Your task to perform on an android device: Open calendar and show me the first week of next month Image 0: 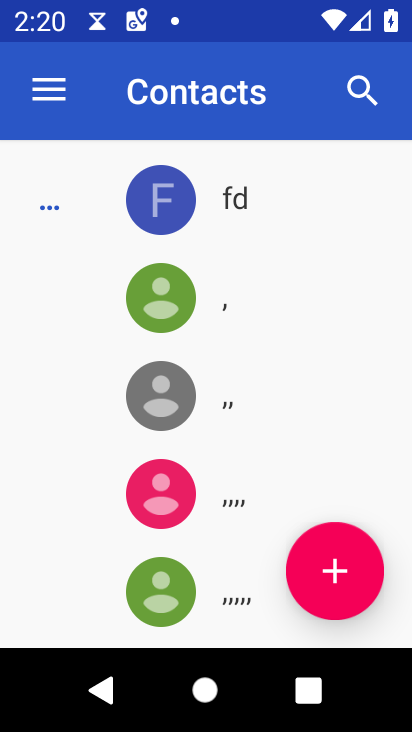
Step 0: press home button
Your task to perform on an android device: Open calendar and show me the first week of next month Image 1: 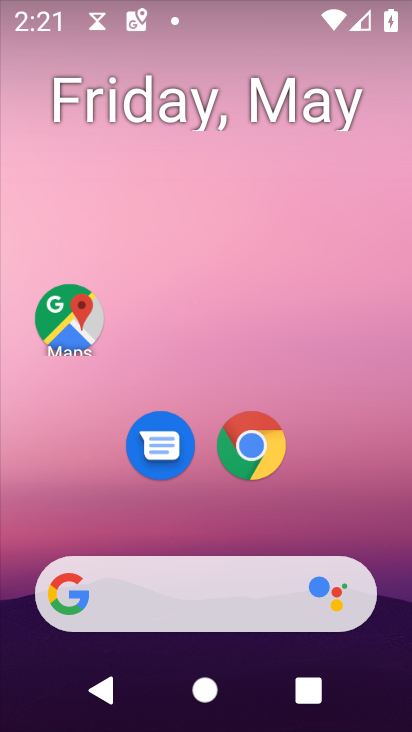
Step 1: drag from (220, 534) to (251, 106)
Your task to perform on an android device: Open calendar and show me the first week of next month Image 2: 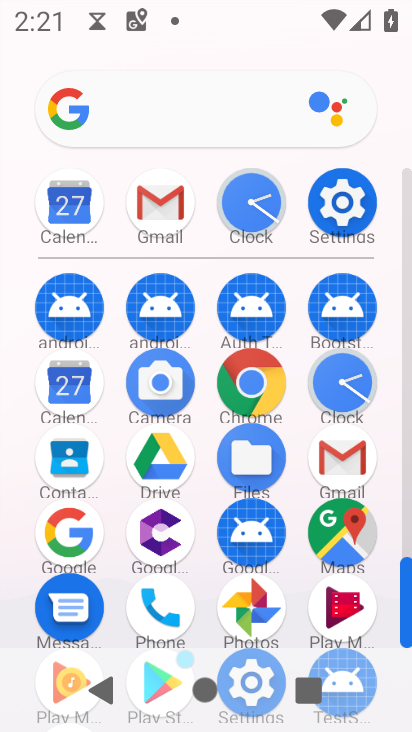
Step 2: click (65, 380)
Your task to perform on an android device: Open calendar and show me the first week of next month Image 3: 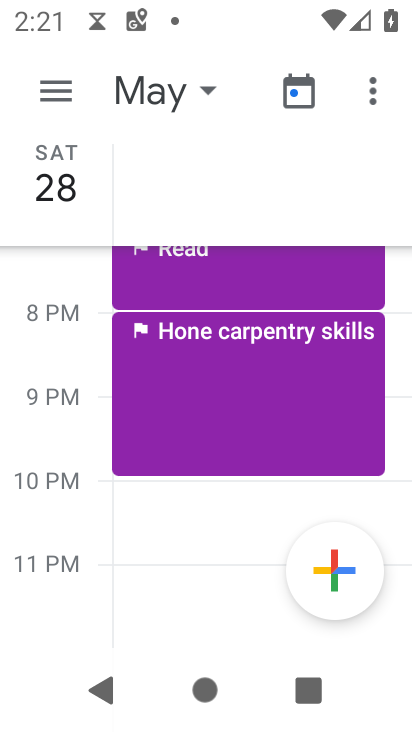
Step 3: click (65, 380)
Your task to perform on an android device: Open calendar and show me the first week of next month Image 4: 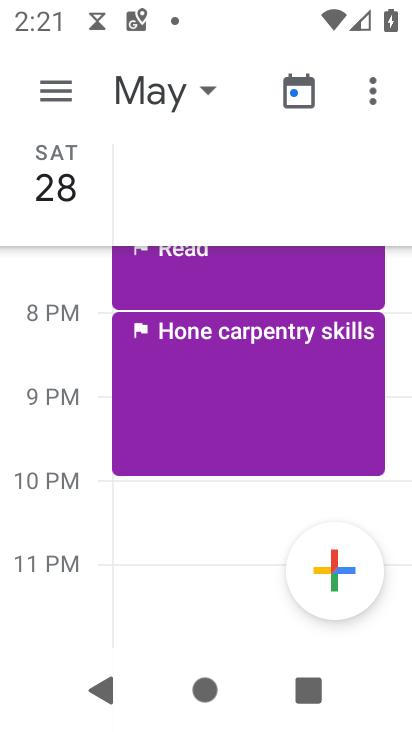
Step 4: click (65, 380)
Your task to perform on an android device: Open calendar and show me the first week of next month Image 5: 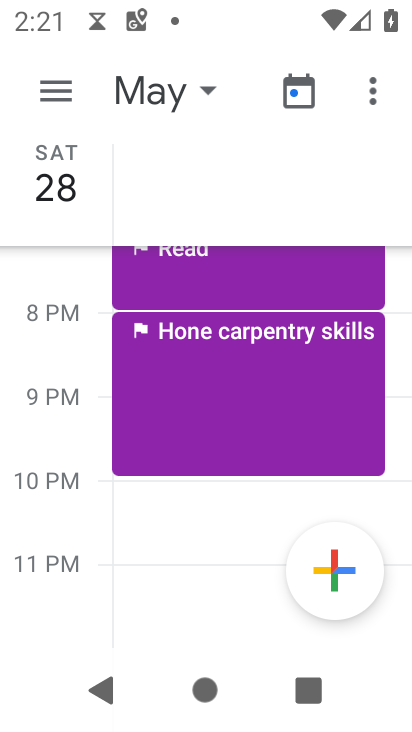
Step 5: click (202, 76)
Your task to perform on an android device: Open calendar and show me the first week of next month Image 6: 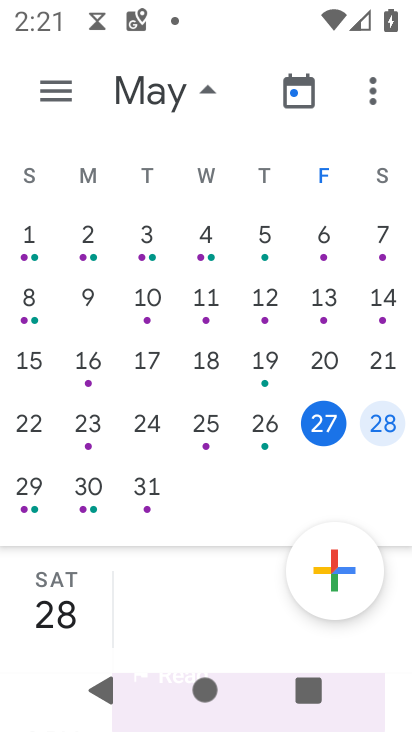
Step 6: drag from (297, 328) to (43, 333)
Your task to perform on an android device: Open calendar and show me the first week of next month Image 7: 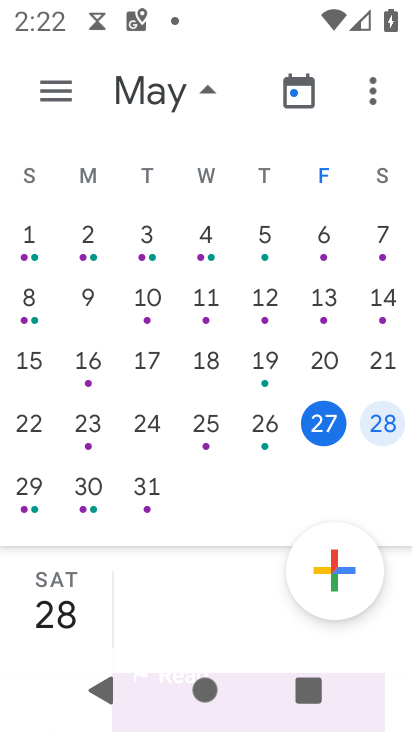
Step 7: drag from (375, 262) to (77, 304)
Your task to perform on an android device: Open calendar and show me the first week of next month Image 8: 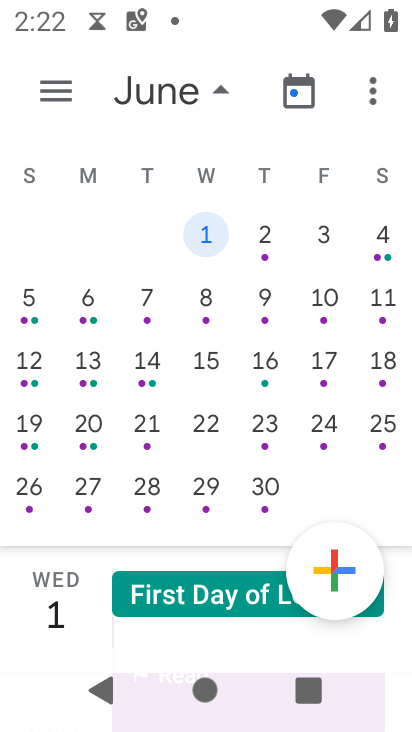
Step 8: click (210, 231)
Your task to perform on an android device: Open calendar and show me the first week of next month Image 9: 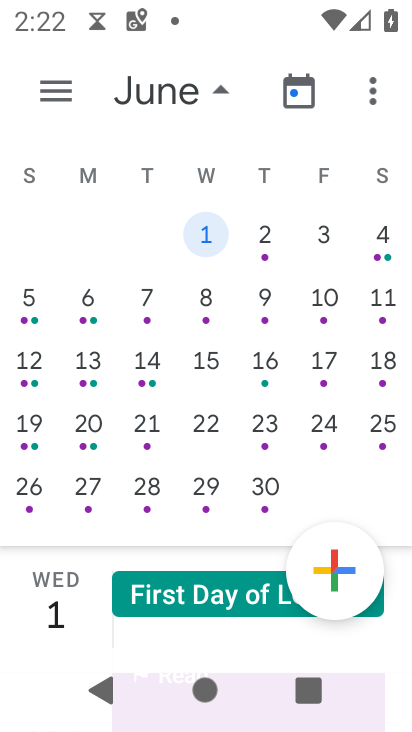
Step 9: click (218, 86)
Your task to perform on an android device: Open calendar and show me the first week of next month Image 10: 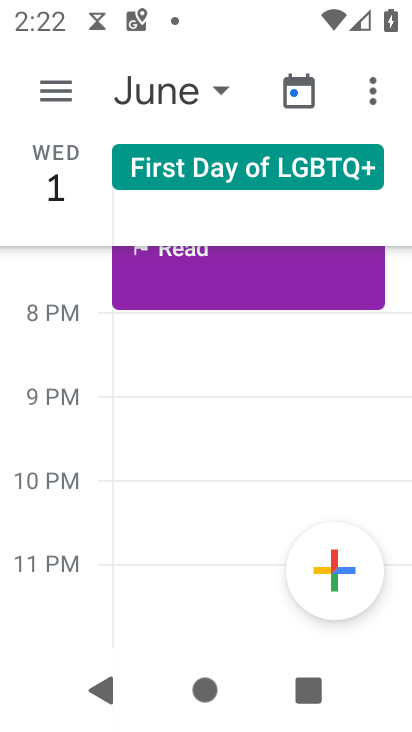
Step 10: task complete